Your task to perform on an android device: Open Youtube and go to the subscriptions tab Image 0: 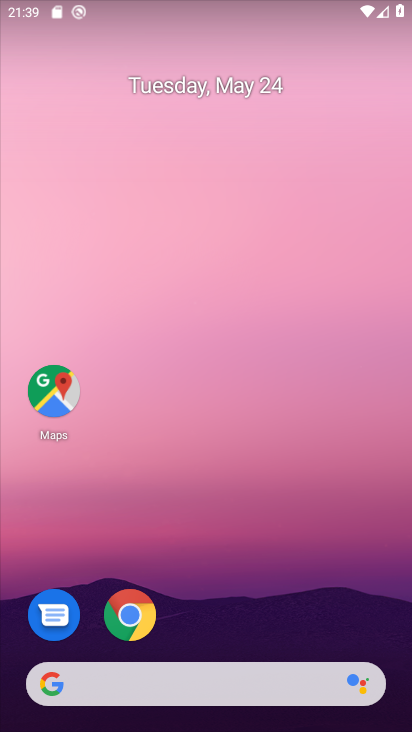
Step 0: drag from (250, 360) to (263, 185)
Your task to perform on an android device: Open Youtube and go to the subscriptions tab Image 1: 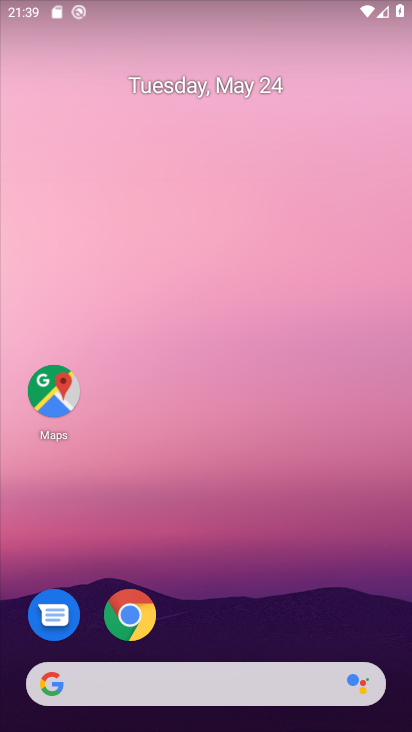
Step 1: drag from (245, 626) to (255, 192)
Your task to perform on an android device: Open Youtube and go to the subscriptions tab Image 2: 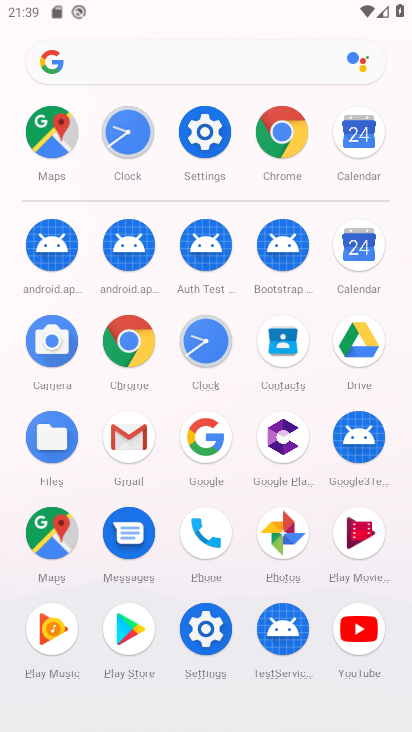
Step 2: click (363, 627)
Your task to perform on an android device: Open Youtube and go to the subscriptions tab Image 3: 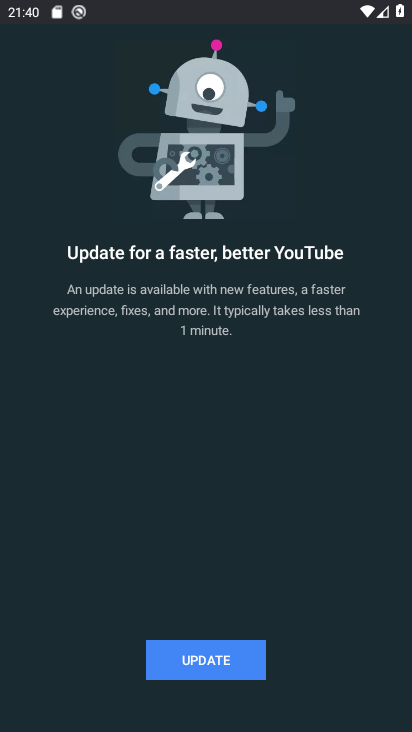
Step 3: task complete